Your task to perform on an android device: remove spam from my inbox in the gmail app Image 0: 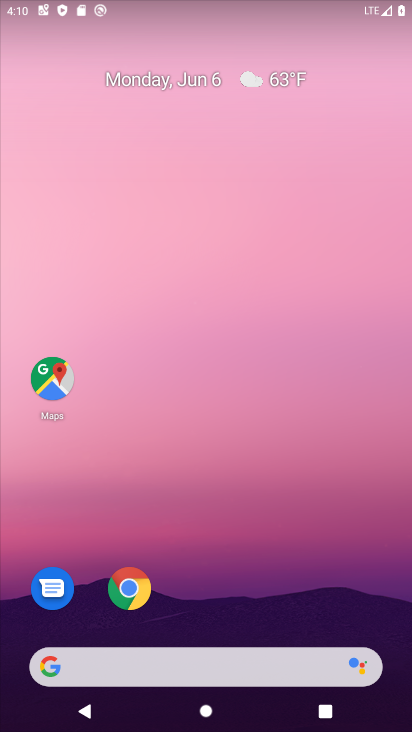
Step 0: drag from (275, 697) to (183, 228)
Your task to perform on an android device: remove spam from my inbox in the gmail app Image 1: 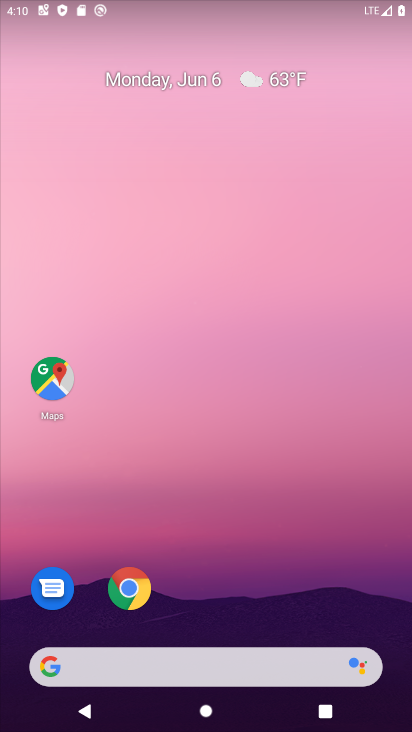
Step 1: drag from (226, 648) to (174, 337)
Your task to perform on an android device: remove spam from my inbox in the gmail app Image 2: 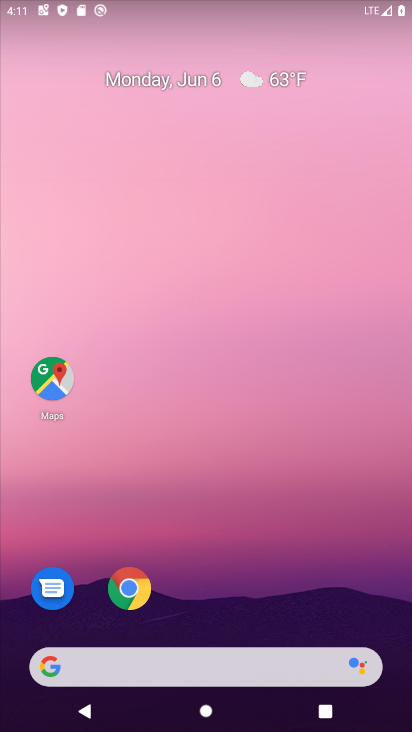
Step 2: drag from (208, 602) to (120, 46)
Your task to perform on an android device: remove spam from my inbox in the gmail app Image 3: 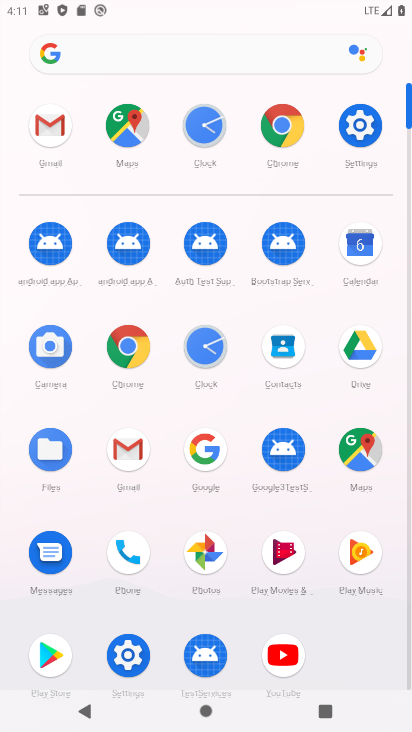
Step 3: click (143, 441)
Your task to perform on an android device: remove spam from my inbox in the gmail app Image 4: 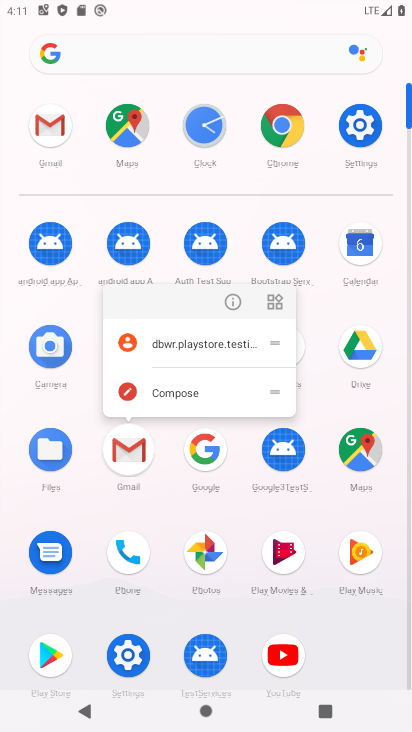
Step 4: click (125, 449)
Your task to perform on an android device: remove spam from my inbox in the gmail app Image 5: 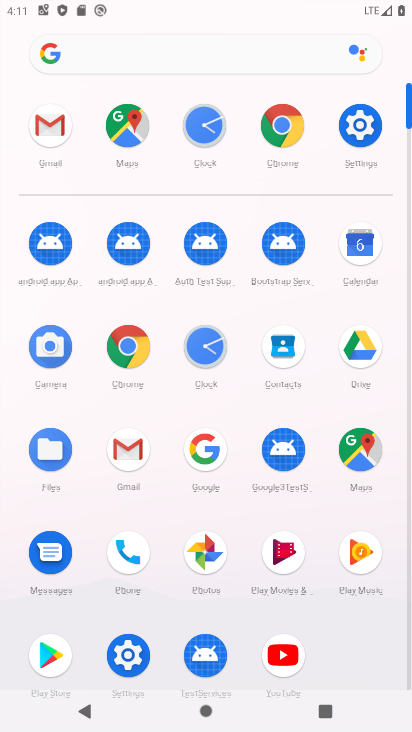
Step 5: click (125, 449)
Your task to perform on an android device: remove spam from my inbox in the gmail app Image 6: 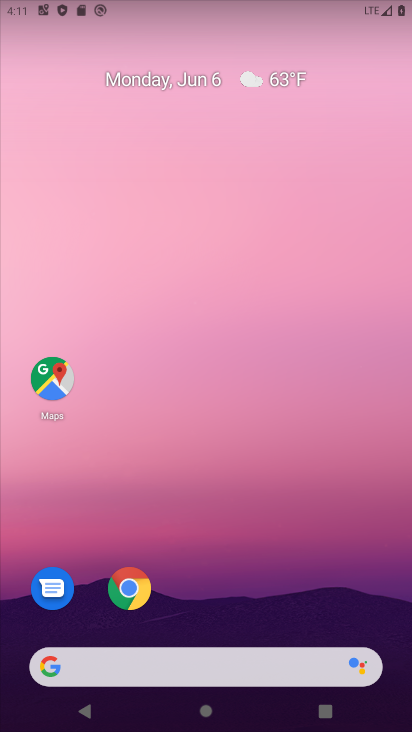
Step 6: click (126, 450)
Your task to perform on an android device: remove spam from my inbox in the gmail app Image 7: 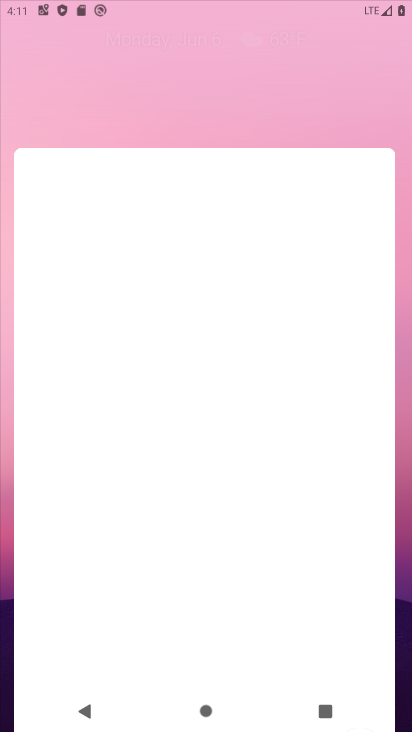
Step 7: click (125, 451)
Your task to perform on an android device: remove spam from my inbox in the gmail app Image 8: 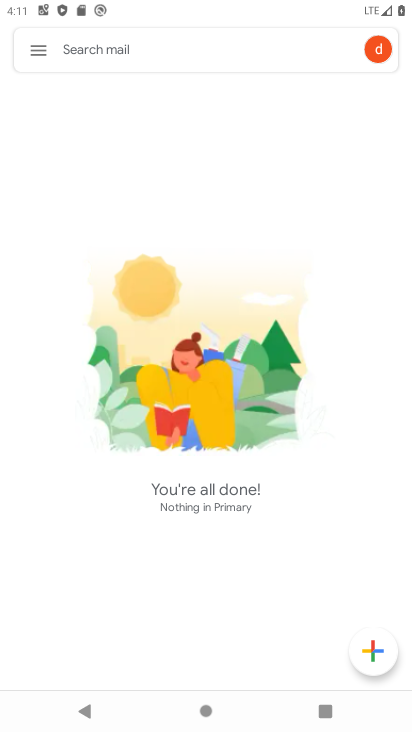
Step 8: click (32, 52)
Your task to perform on an android device: remove spam from my inbox in the gmail app Image 9: 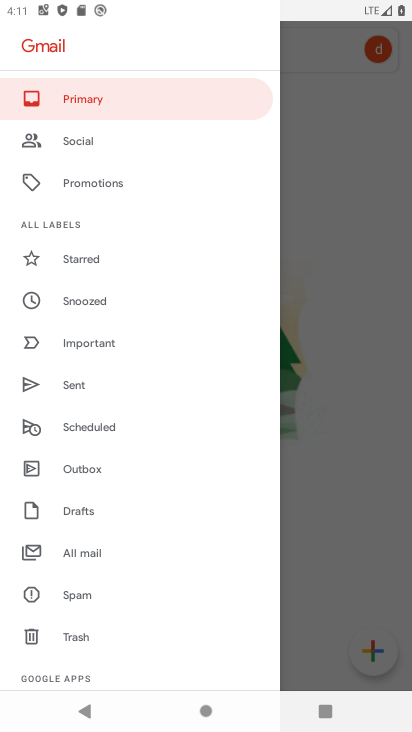
Step 9: click (94, 587)
Your task to perform on an android device: remove spam from my inbox in the gmail app Image 10: 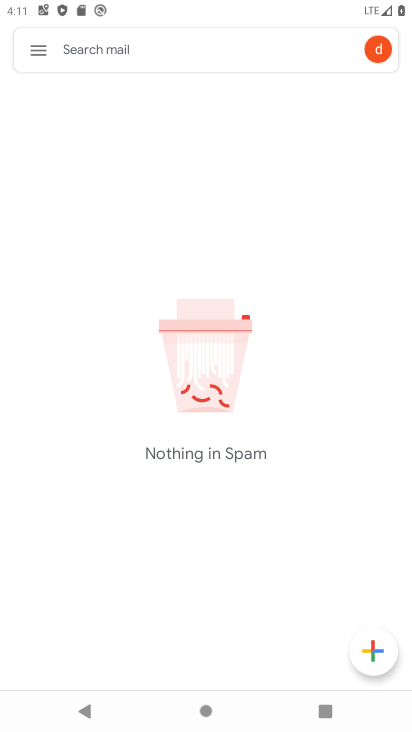
Step 10: task complete